Your task to perform on an android device: turn off data saver in the chrome app Image 0: 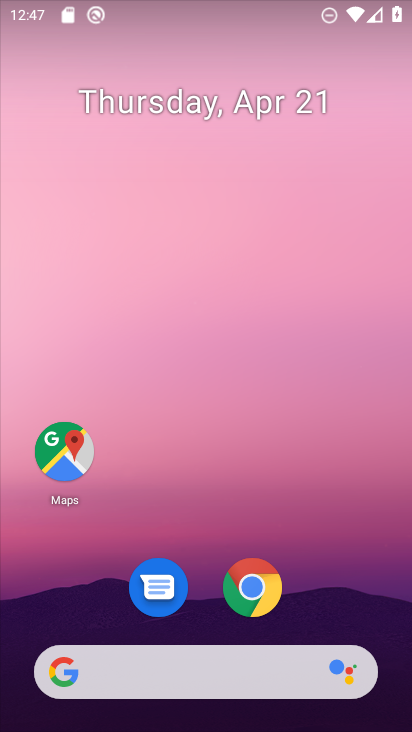
Step 0: click (251, 587)
Your task to perform on an android device: turn off data saver in the chrome app Image 1: 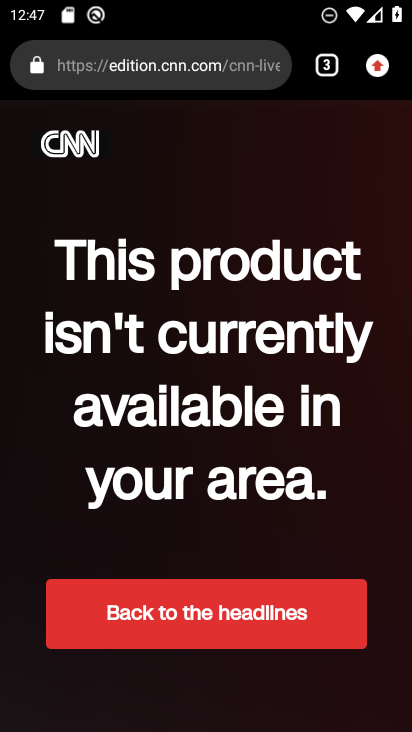
Step 1: click (378, 70)
Your task to perform on an android device: turn off data saver in the chrome app Image 2: 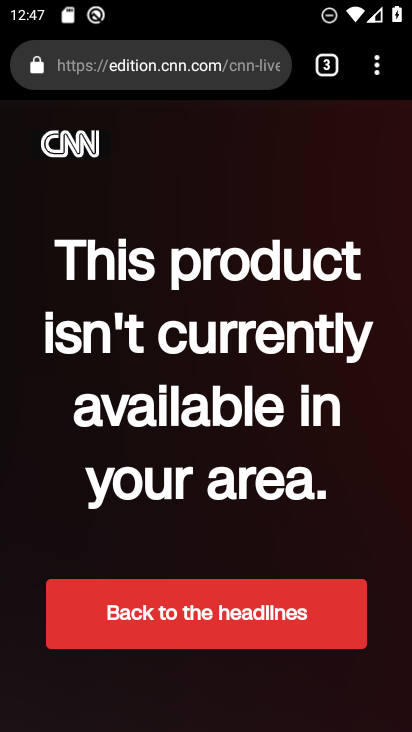
Step 2: click (372, 62)
Your task to perform on an android device: turn off data saver in the chrome app Image 3: 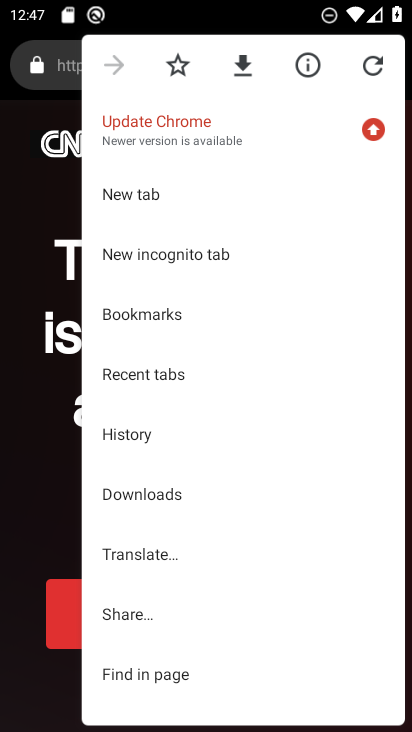
Step 3: drag from (219, 608) to (219, 287)
Your task to perform on an android device: turn off data saver in the chrome app Image 4: 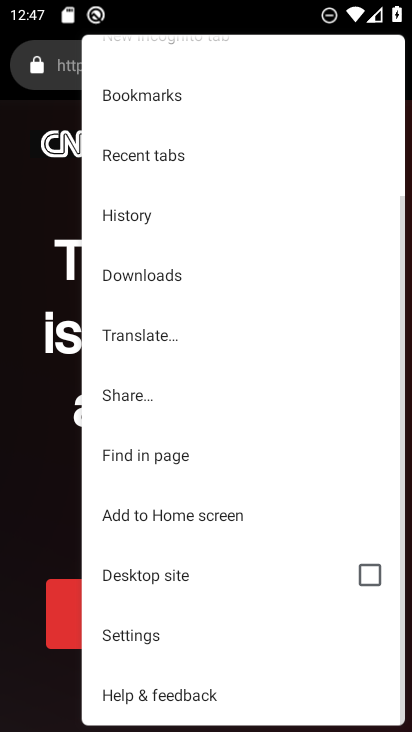
Step 4: click (136, 630)
Your task to perform on an android device: turn off data saver in the chrome app Image 5: 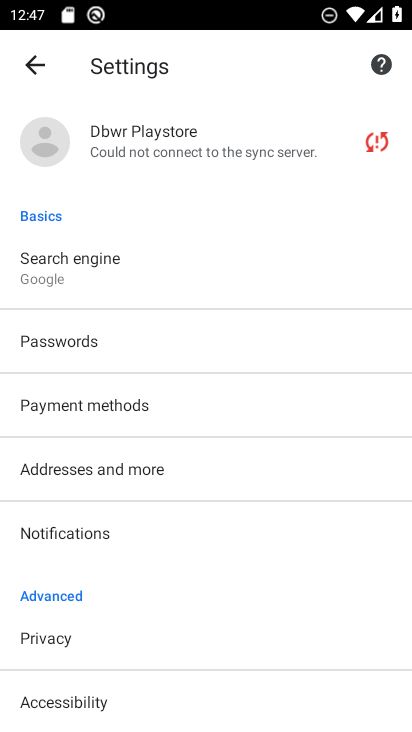
Step 5: drag from (206, 541) to (187, 231)
Your task to perform on an android device: turn off data saver in the chrome app Image 6: 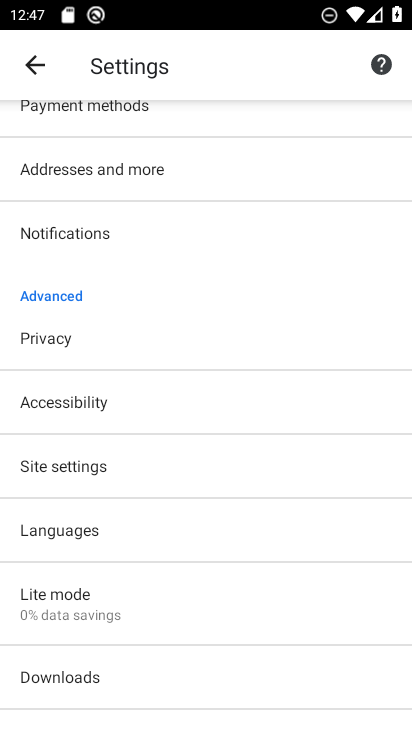
Step 6: click (49, 600)
Your task to perform on an android device: turn off data saver in the chrome app Image 7: 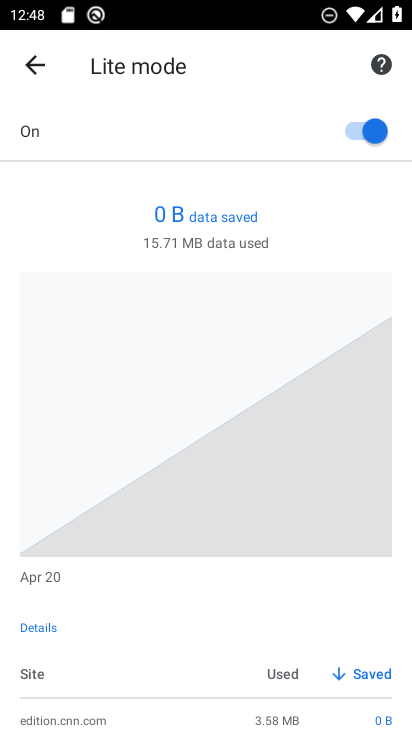
Step 7: click (373, 126)
Your task to perform on an android device: turn off data saver in the chrome app Image 8: 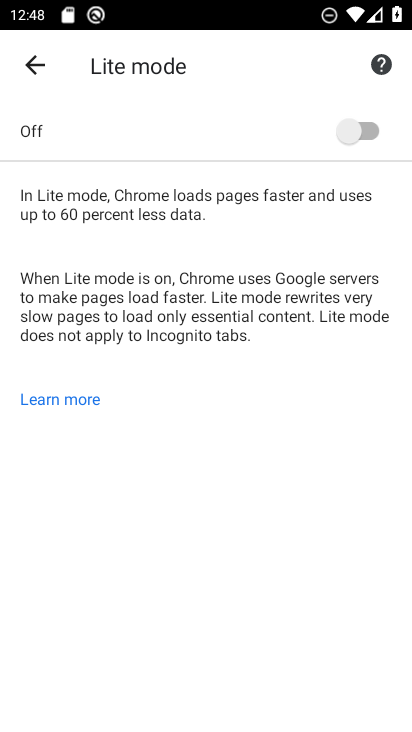
Step 8: task complete